Your task to perform on an android device: turn pop-ups off in chrome Image 0: 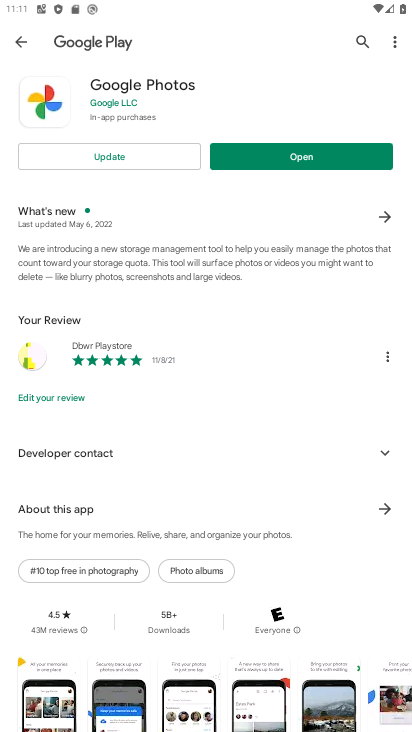
Step 0: press home button
Your task to perform on an android device: turn pop-ups off in chrome Image 1: 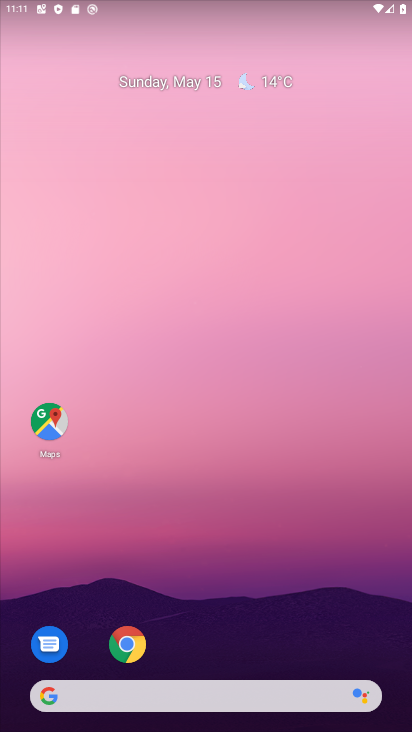
Step 1: click (134, 635)
Your task to perform on an android device: turn pop-ups off in chrome Image 2: 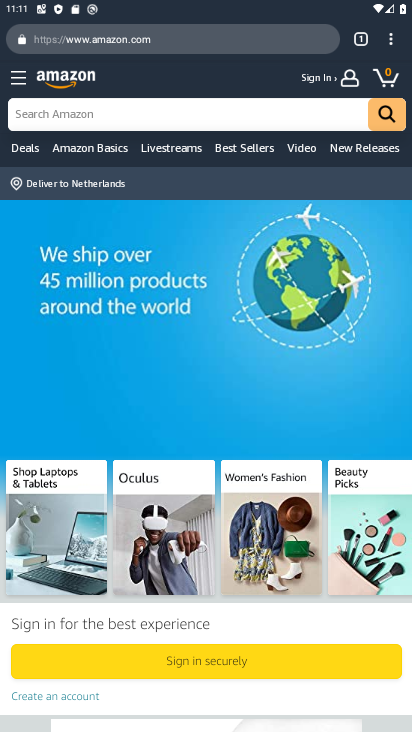
Step 2: click (386, 43)
Your task to perform on an android device: turn pop-ups off in chrome Image 3: 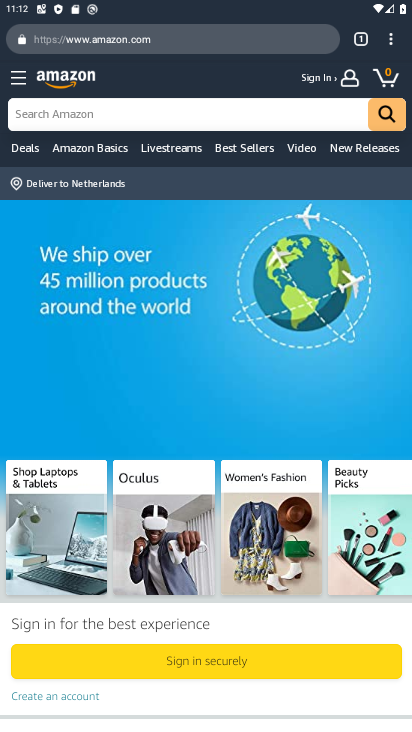
Step 3: click (398, 36)
Your task to perform on an android device: turn pop-ups off in chrome Image 4: 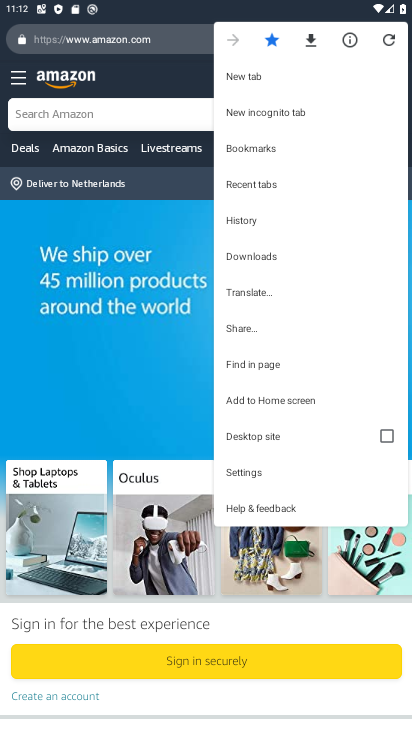
Step 4: click (235, 470)
Your task to perform on an android device: turn pop-ups off in chrome Image 5: 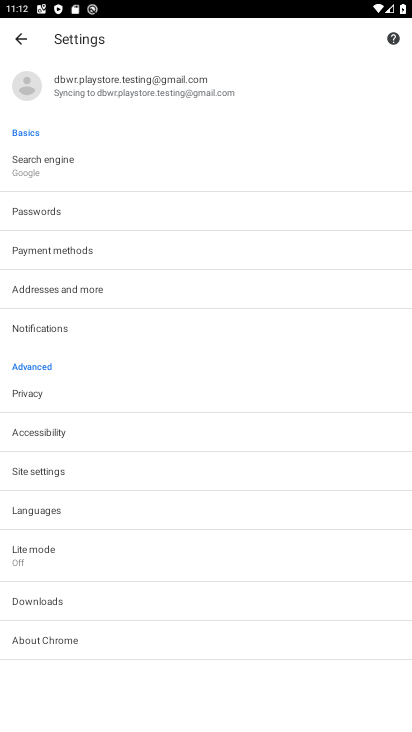
Step 5: click (215, 462)
Your task to perform on an android device: turn pop-ups off in chrome Image 6: 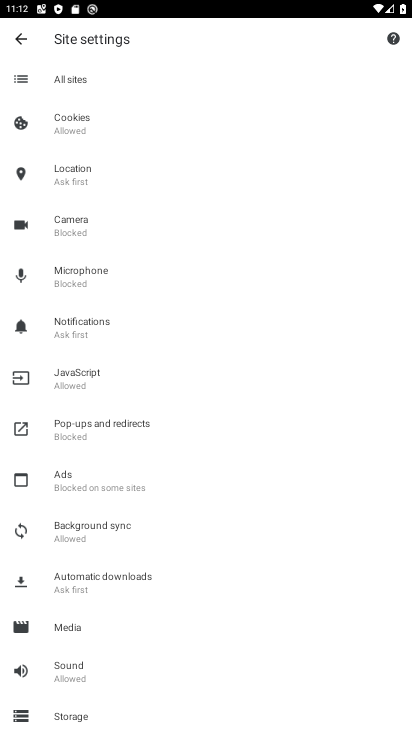
Step 6: click (132, 422)
Your task to perform on an android device: turn pop-ups off in chrome Image 7: 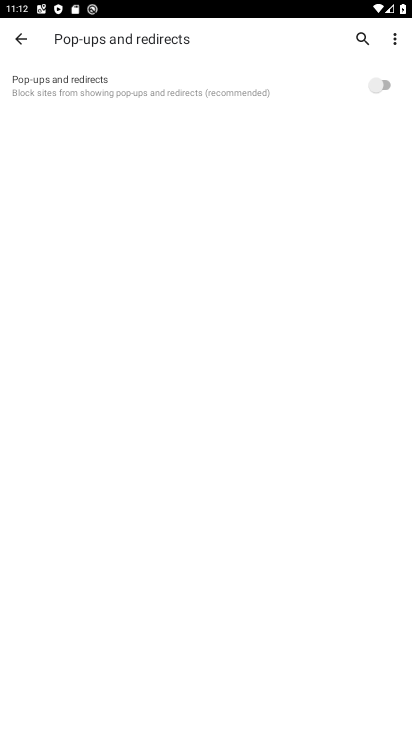
Step 7: task complete